Your task to perform on an android device: Open Chrome and go to settings Image 0: 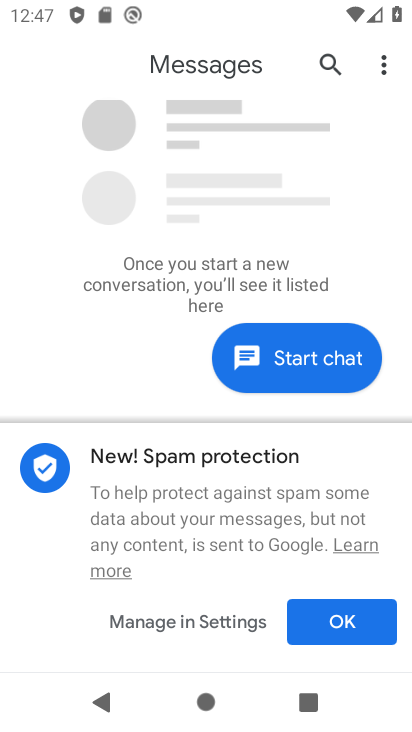
Step 0: press home button
Your task to perform on an android device: Open Chrome and go to settings Image 1: 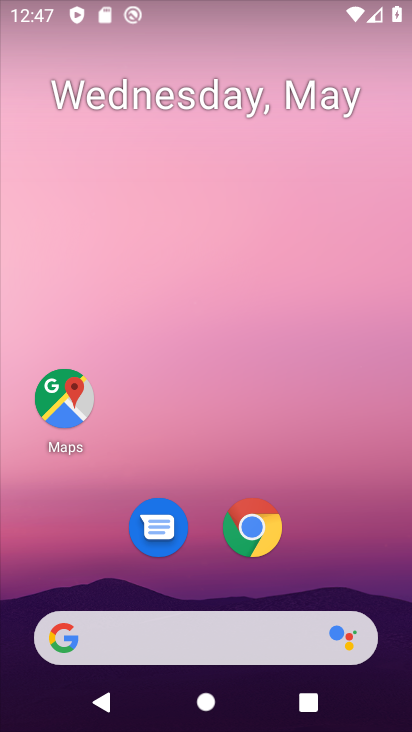
Step 1: click (259, 530)
Your task to perform on an android device: Open Chrome and go to settings Image 2: 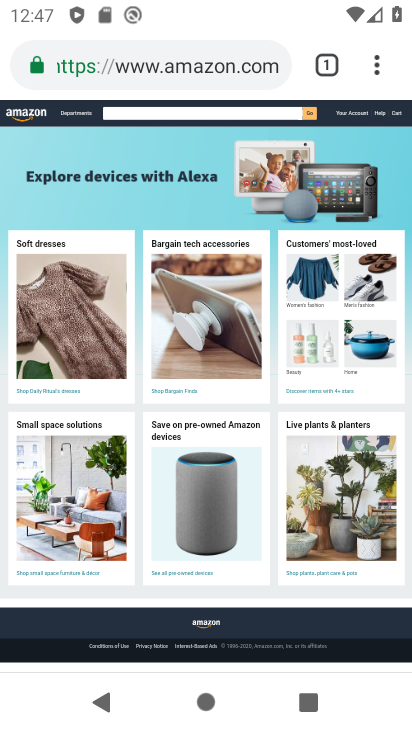
Step 2: click (379, 66)
Your task to perform on an android device: Open Chrome and go to settings Image 3: 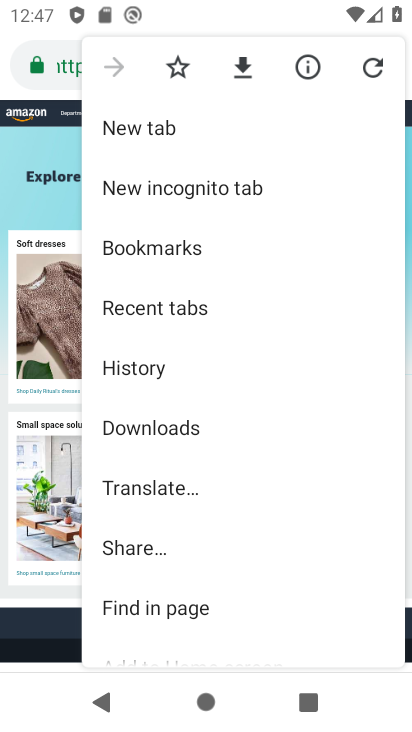
Step 3: drag from (173, 626) to (192, 403)
Your task to perform on an android device: Open Chrome and go to settings Image 4: 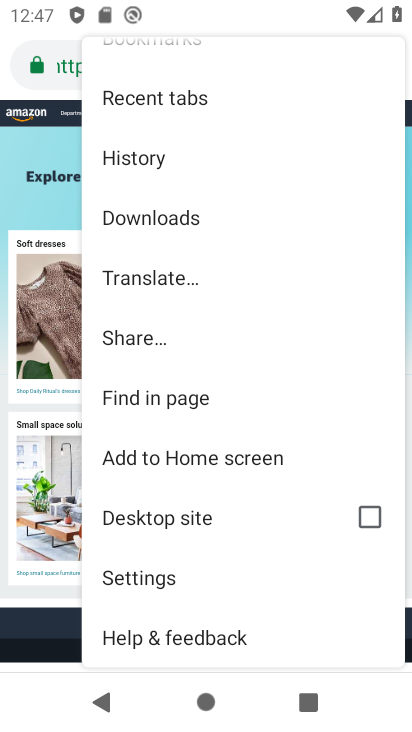
Step 4: click (154, 579)
Your task to perform on an android device: Open Chrome and go to settings Image 5: 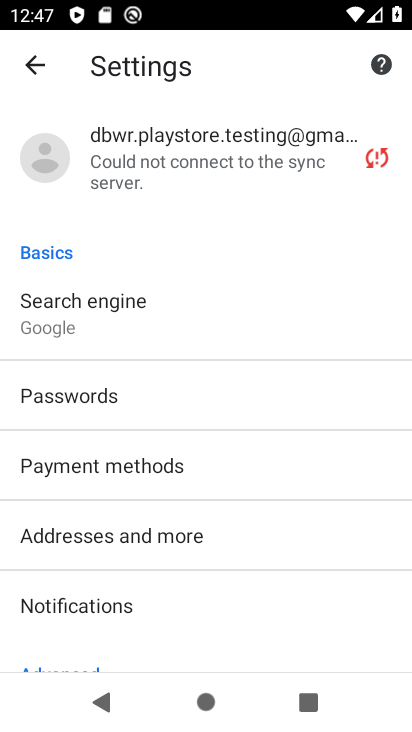
Step 5: task complete